Your task to perform on an android device: toggle notifications settings in the gmail app Image 0: 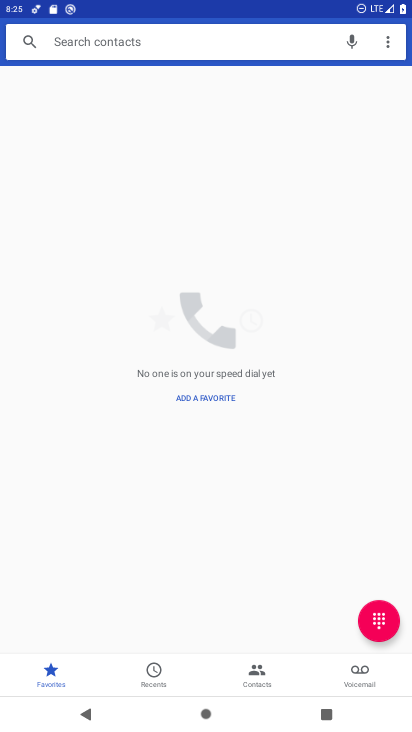
Step 0: press home button
Your task to perform on an android device: toggle notifications settings in the gmail app Image 1: 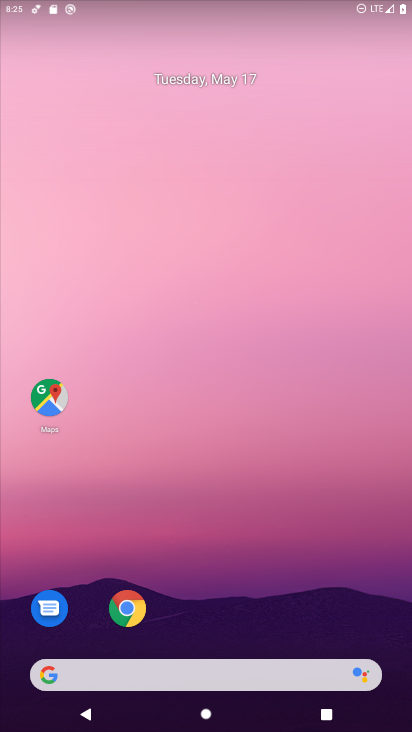
Step 1: drag from (205, 588) to (251, 173)
Your task to perform on an android device: toggle notifications settings in the gmail app Image 2: 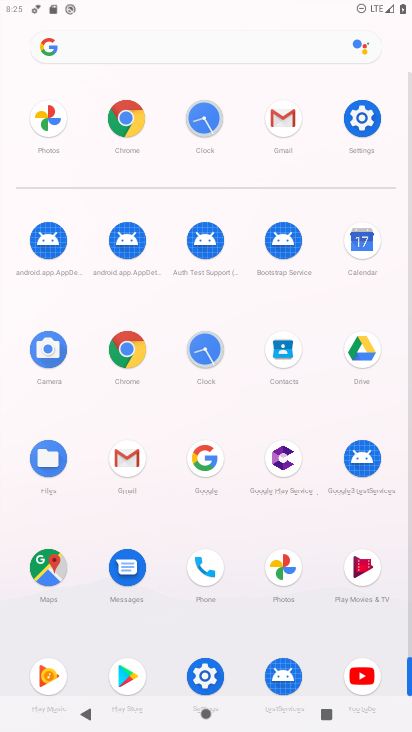
Step 2: click (138, 465)
Your task to perform on an android device: toggle notifications settings in the gmail app Image 3: 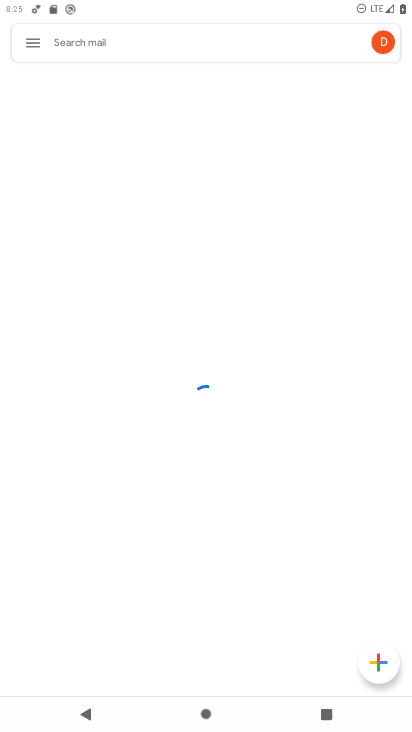
Step 3: click (16, 40)
Your task to perform on an android device: toggle notifications settings in the gmail app Image 4: 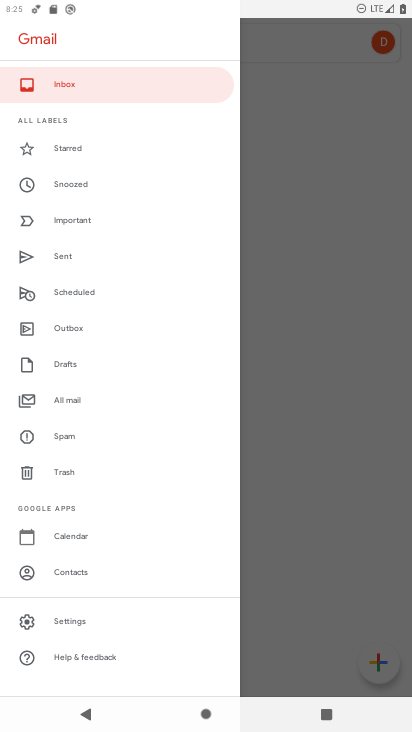
Step 4: click (84, 623)
Your task to perform on an android device: toggle notifications settings in the gmail app Image 5: 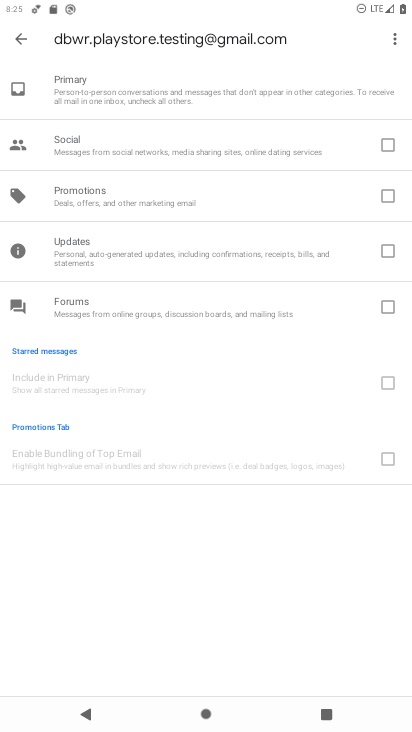
Step 5: click (24, 35)
Your task to perform on an android device: toggle notifications settings in the gmail app Image 6: 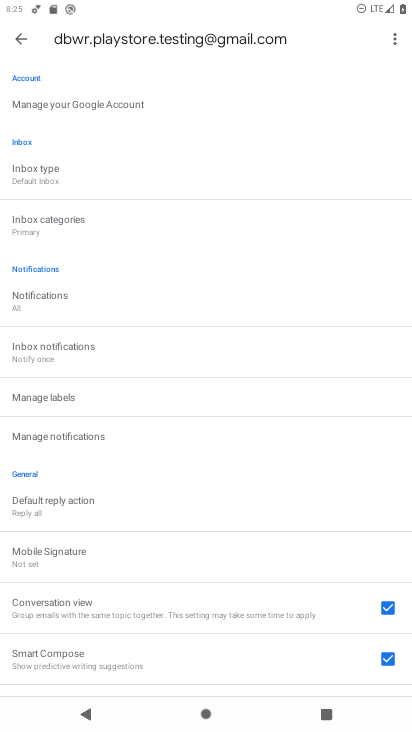
Step 6: click (29, 41)
Your task to perform on an android device: toggle notifications settings in the gmail app Image 7: 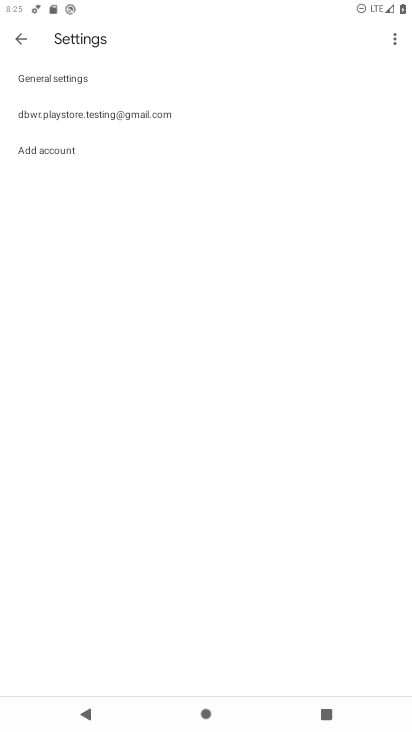
Step 7: click (69, 74)
Your task to perform on an android device: toggle notifications settings in the gmail app Image 8: 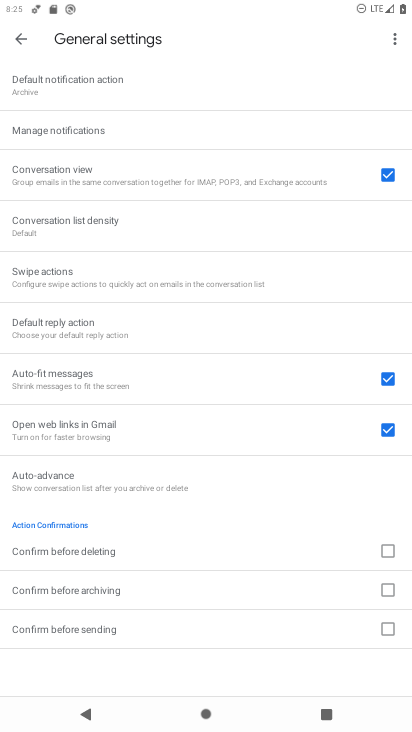
Step 8: click (80, 135)
Your task to perform on an android device: toggle notifications settings in the gmail app Image 9: 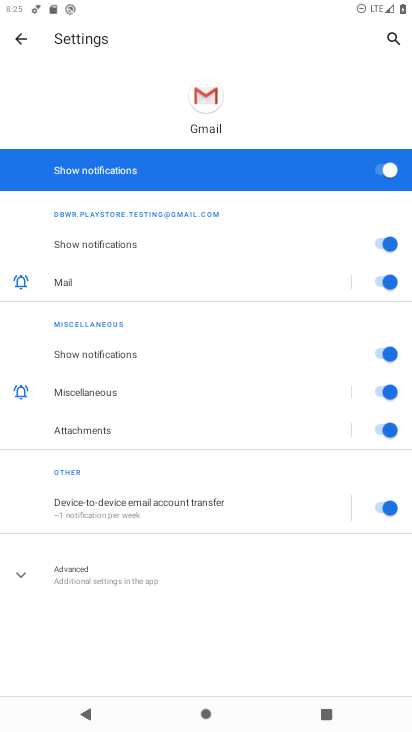
Step 9: click (380, 175)
Your task to perform on an android device: toggle notifications settings in the gmail app Image 10: 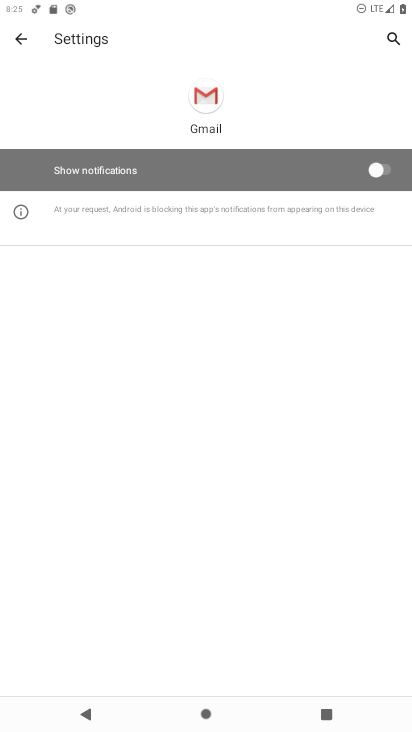
Step 10: task complete